Your task to perform on an android device: Open internet settings Image 0: 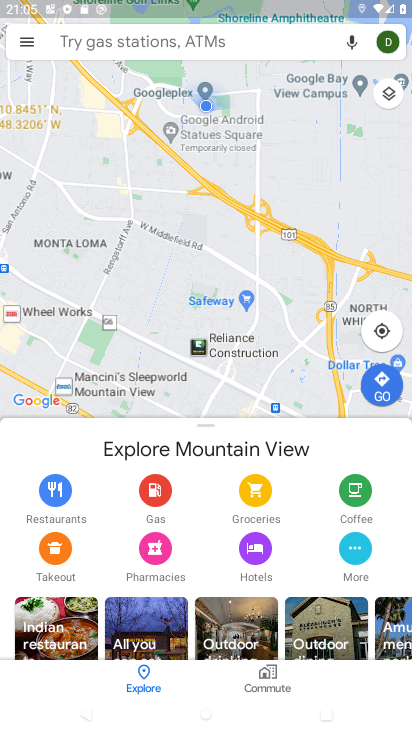
Step 0: press home button
Your task to perform on an android device: Open internet settings Image 1: 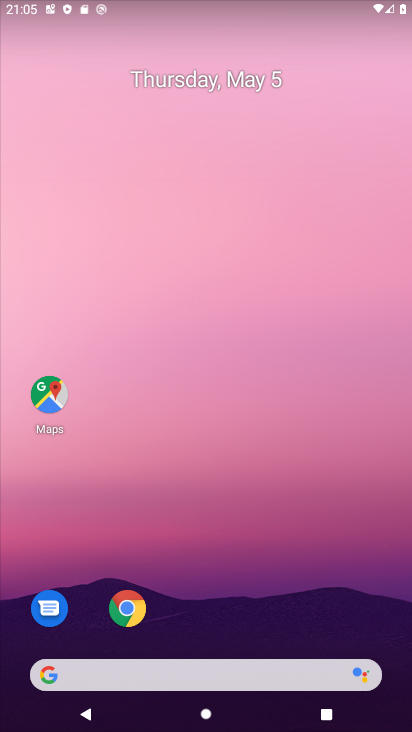
Step 1: drag from (337, 646) to (245, 53)
Your task to perform on an android device: Open internet settings Image 2: 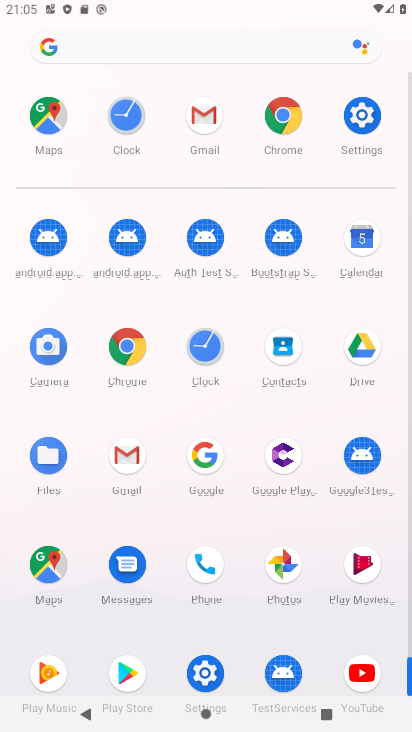
Step 2: click (359, 118)
Your task to perform on an android device: Open internet settings Image 3: 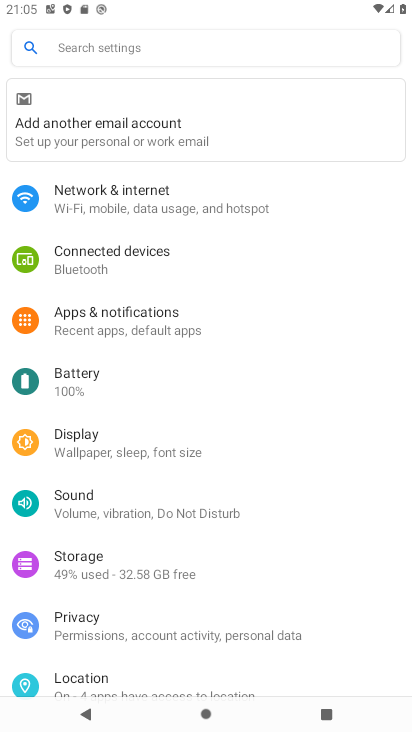
Step 3: click (191, 199)
Your task to perform on an android device: Open internet settings Image 4: 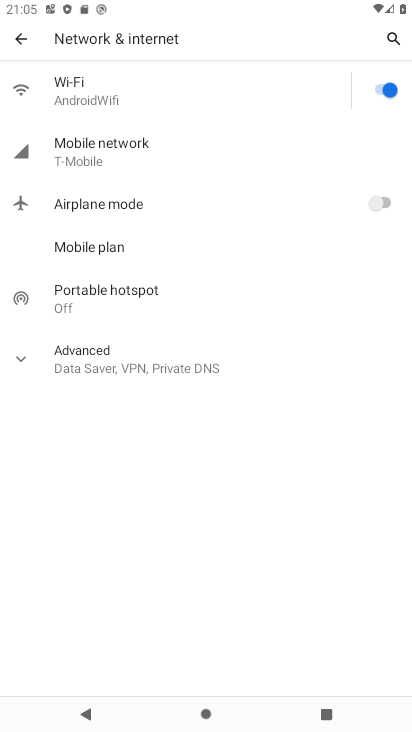
Step 4: click (142, 147)
Your task to perform on an android device: Open internet settings Image 5: 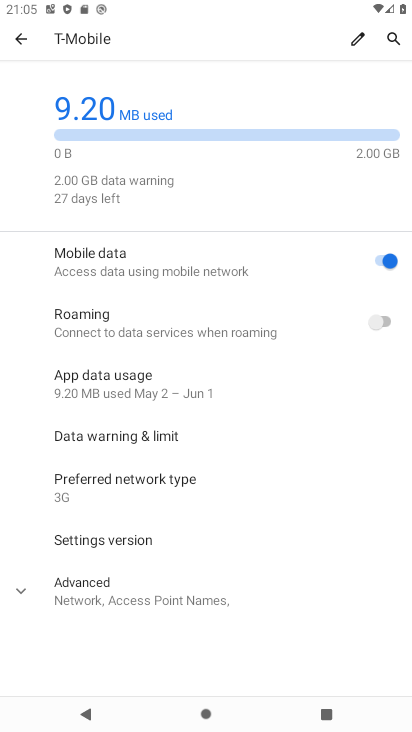
Step 5: task complete